Your task to perform on an android device: Find coffee shops on Maps Image 0: 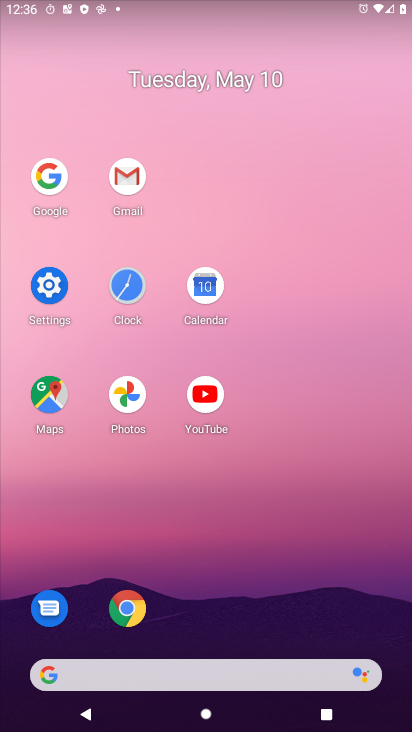
Step 0: click (47, 399)
Your task to perform on an android device: Find coffee shops on Maps Image 1: 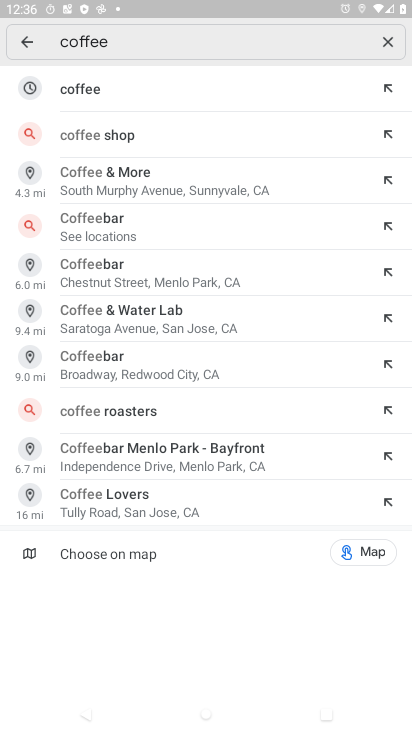
Step 1: click (216, 147)
Your task to perform on an android device: Find coffee shops on Maps Image 2: 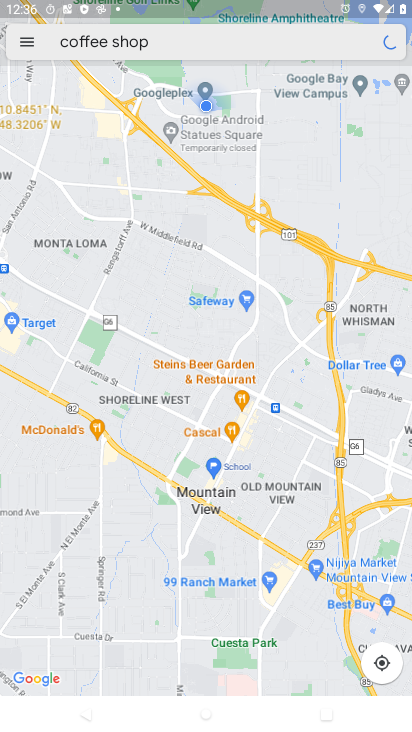
Step 2: task complete